Your task to perform on an android device: find which apps use the phone's location Image 0: 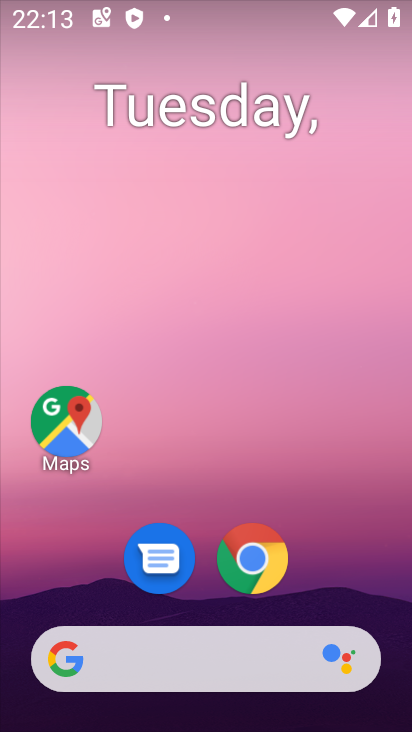
Step 0: drag from (339, 583) to (410, 8)
Your task to perform on an android device: find which apps use the phone's location Image 1: 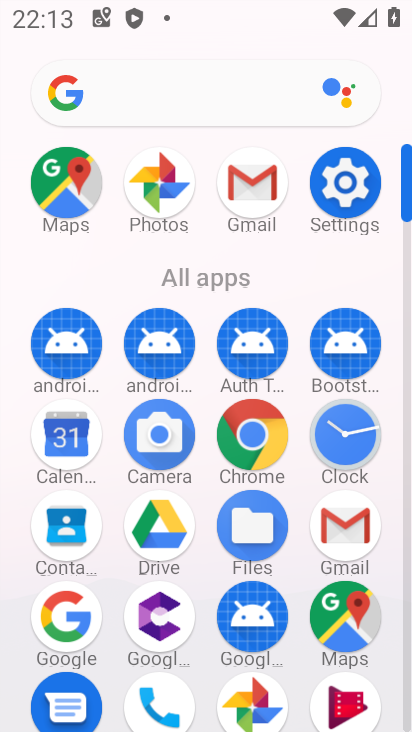
Step 1: click (347, 176)
Your task to perform on an android device: find which apps use the phone's location Image 2: 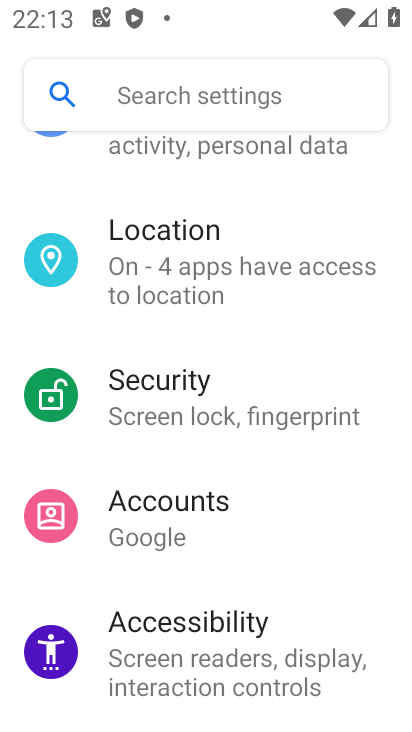
Step 2: click (189, 282)
Your task to perform on an android device: find which apps use the phone's location Image 3: 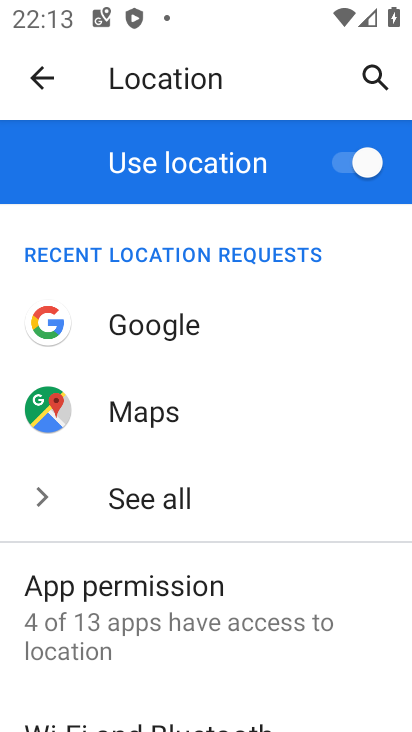
Step 3: click (92, 605)
Your task to perform on an android device: find which apps use the phone's location Image 4: 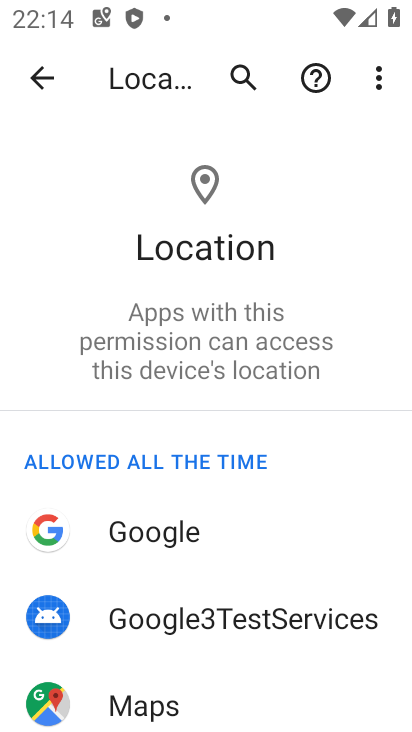
Step 4: task complete